Your task to perform on an android device: toggle show notifications on the lock screen Image 0: 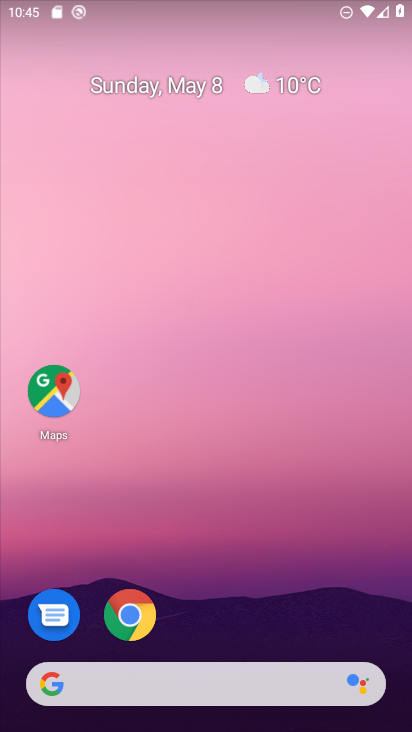
Step 0: drag from (331, 600) to (255, 144)
Your task to perform on an android device: toggle show notifications on the lock screen Image 1: 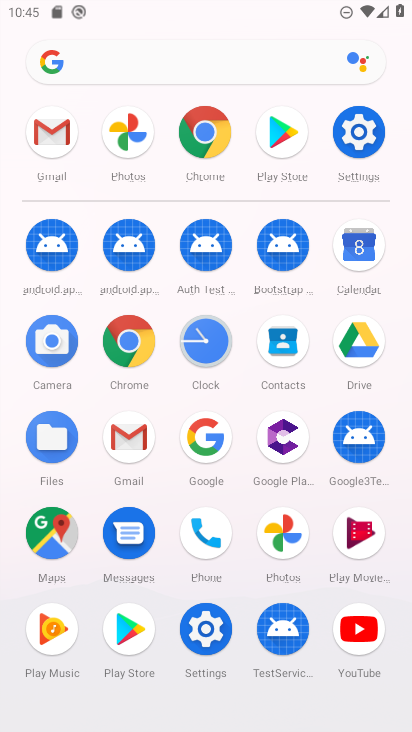
Step 1: click (355, 126)
Your task to perform on an android device: toggle show notifications on the lock screen Image 2: 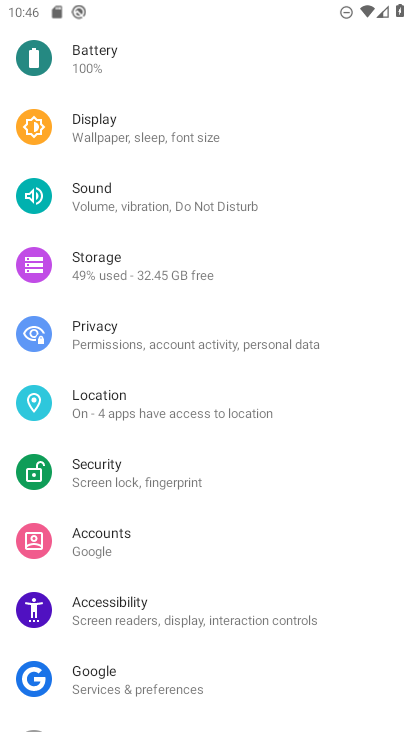
Step 2: drag from (251, 227) to (233, 694)
Your task to perform on an android device: toggle show notifications on the lock screen Image 3: 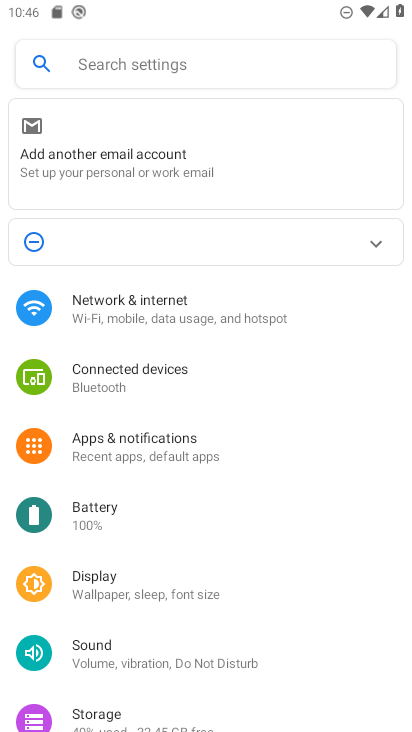
Step 3: click (185, 454)
Your task to perform on an android device: toggle show notifications on the lock screen Image 4: 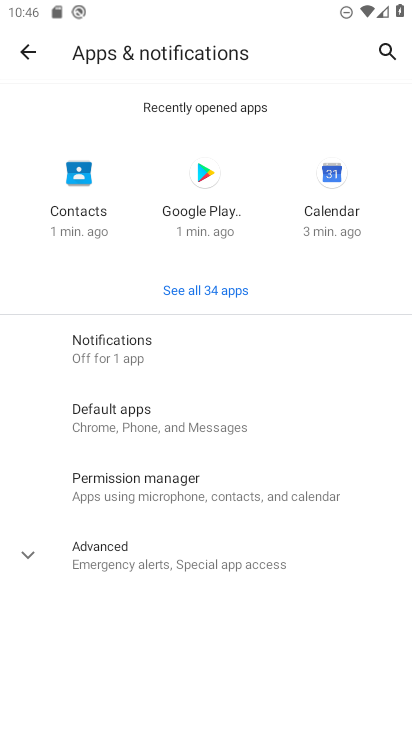
Step 4: click (174, 341)
Your task to perform on an android device: toggle show notifications on the lock screen Image 5: 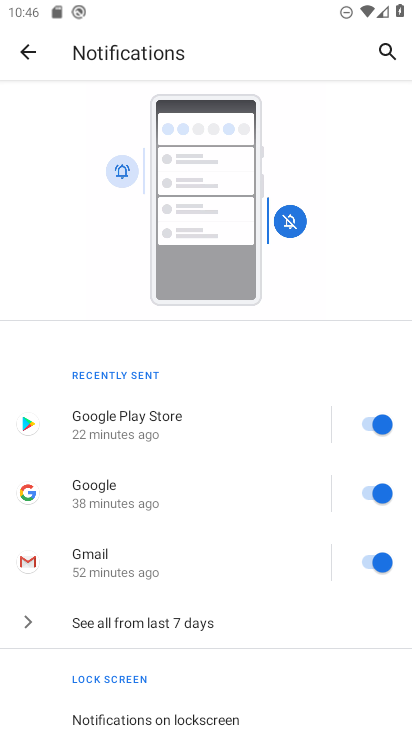
Step 5: drag from (267, 714) to (330, 221)
Your task to perform on an android device: toggle show notifications on the lock screen Image 6: 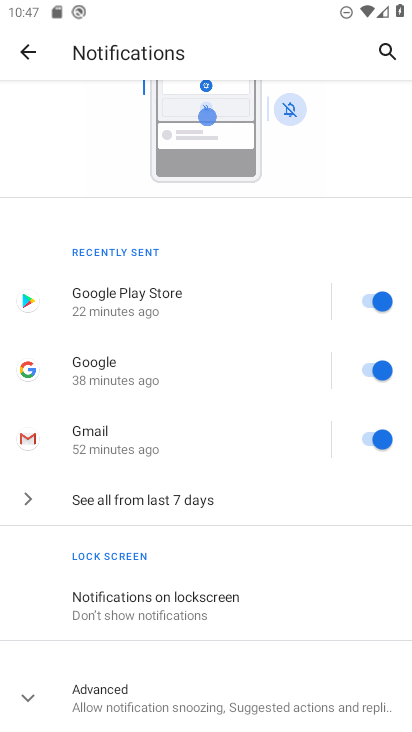
Step 6: click (196, 590)
Your task to perform on an android device: toggle show notifications on the lock screen Image 7: 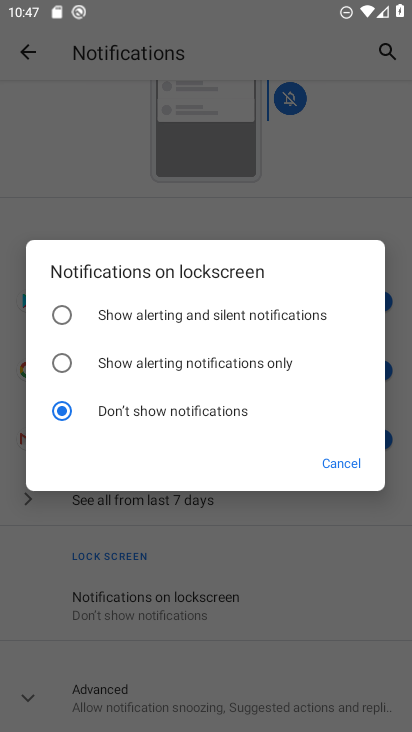
Step 7: click (219, 361)
Your task to perform on an android device: toggle show notifications on the lock screen Image 8: 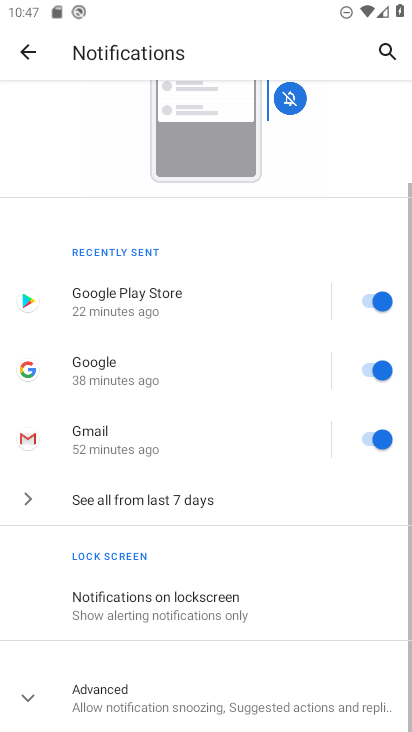
Step 8: task complete